Your task to perform on an android device: all mails in gmail Image 0: 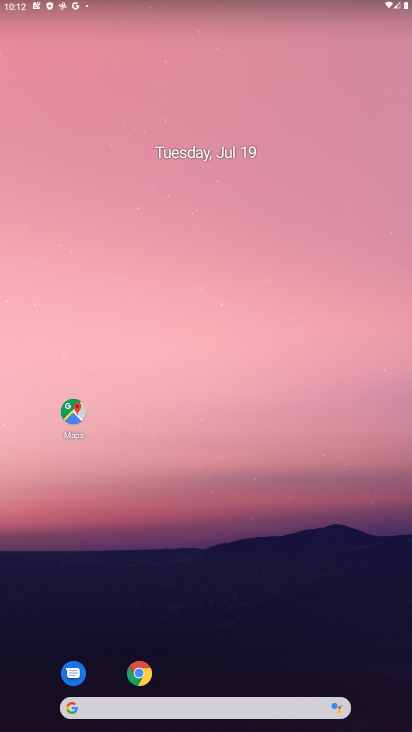
Step 0: drag from (186, 674) to (205, 187)
Your task to perform on an android device: all mails in gmail Image 1: 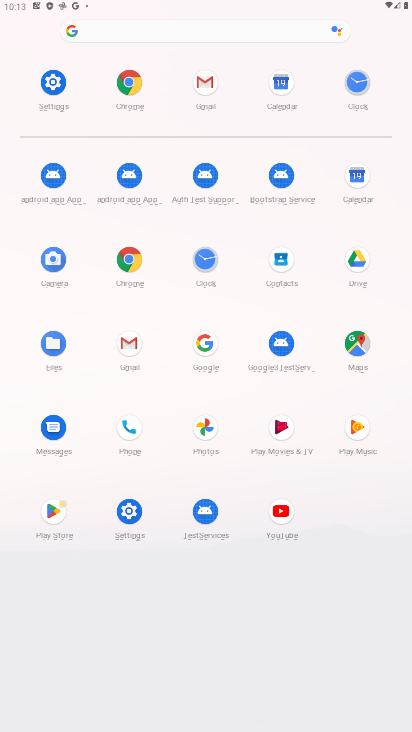
Step 1: click (222, 94)
Your task to perform on an android device: all mails in gmail Image 2: 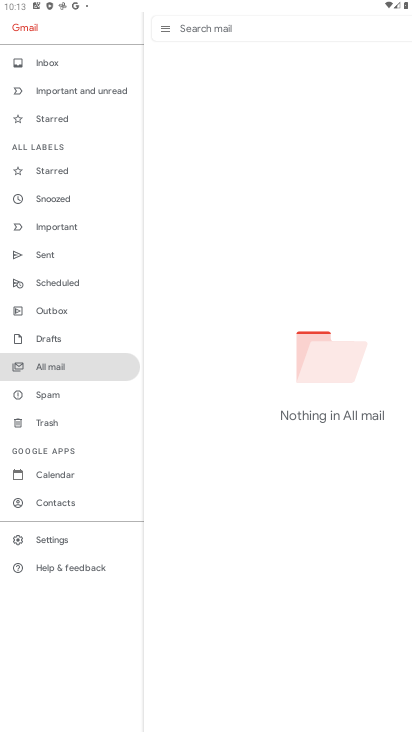
Step 2: click (57, 365)
Your task to perform on an android device: all mails in gmail Image 3: 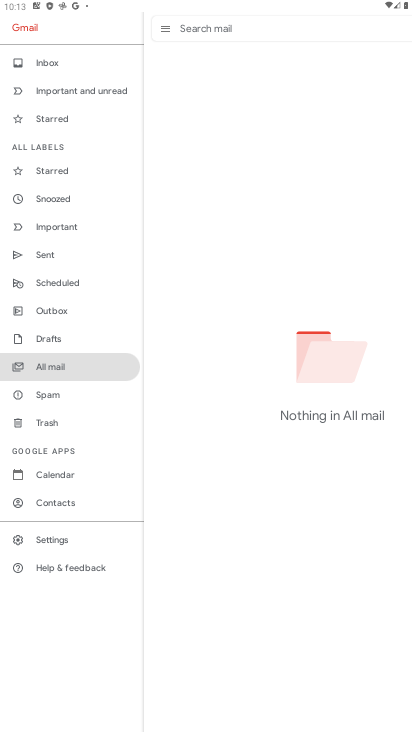
Step 3: task complete